Your task to perform on an android device: add a contact in the contacts app Image 0: 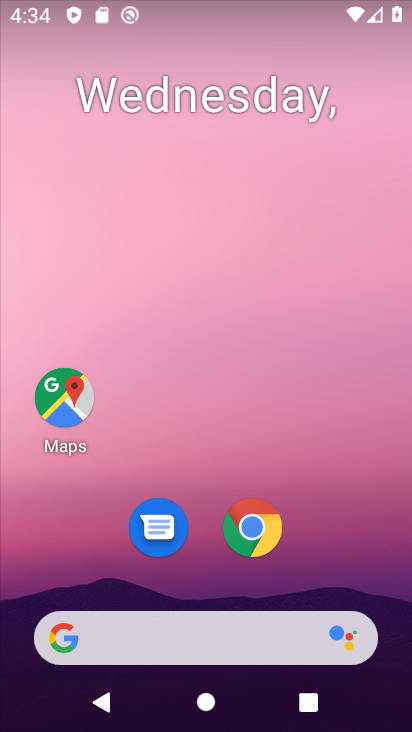
Step 0: drag from (218, 553) to (216, 50)
Your task to perform on an android device: add a contact in the contacts app Image 1: 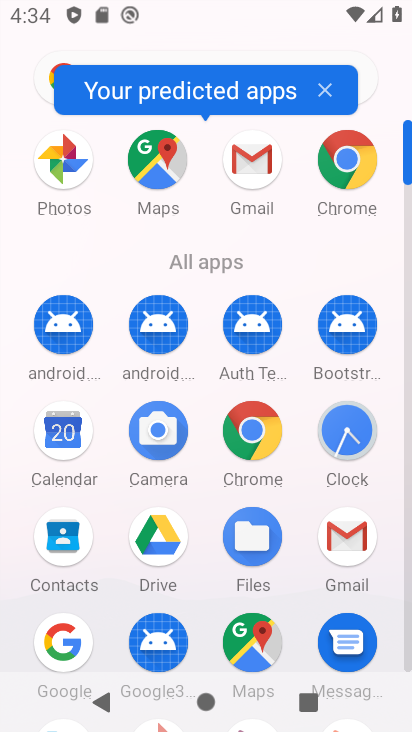
Step 1: click (68, 542)
Your task to perform on an android device: add a contact in the contacts app Image 2: 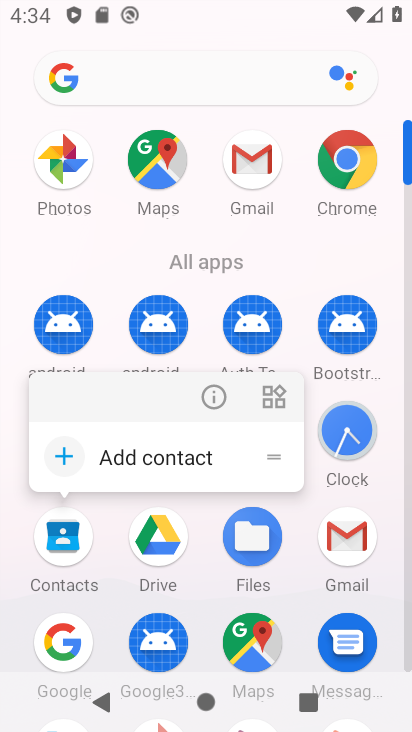
Step 2: click (60, 547)
Your task to perform on an android device: add a contact in the contacts app Image 3: 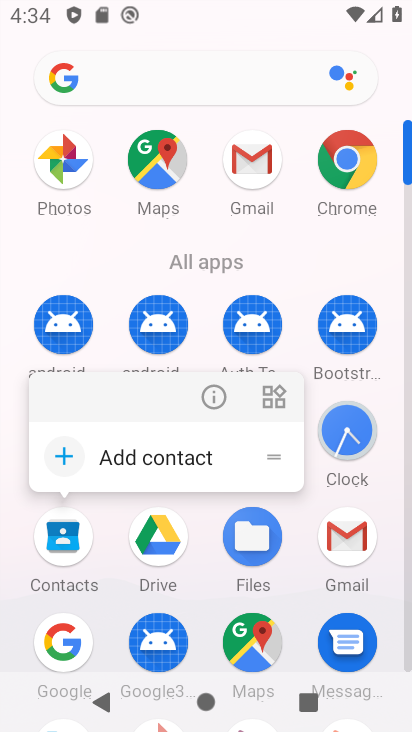
Step 3: click (65, 534)
Your task to perform on an android device: add a contact in the contacts app Image 4: 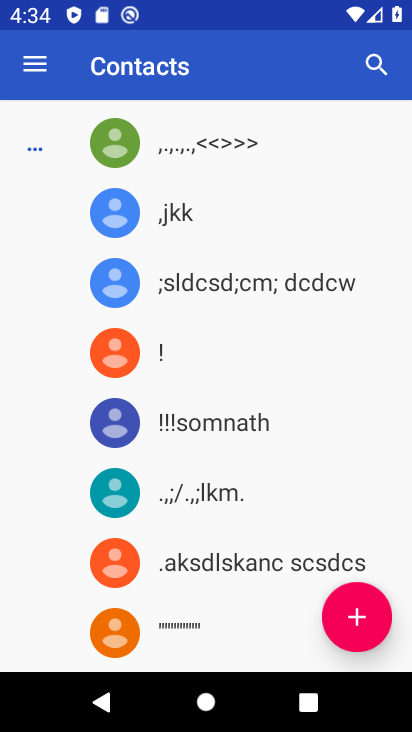
Step 4: click (364, 622)
Your task to perform on an android device: add a contact in the contacts app Image 5: 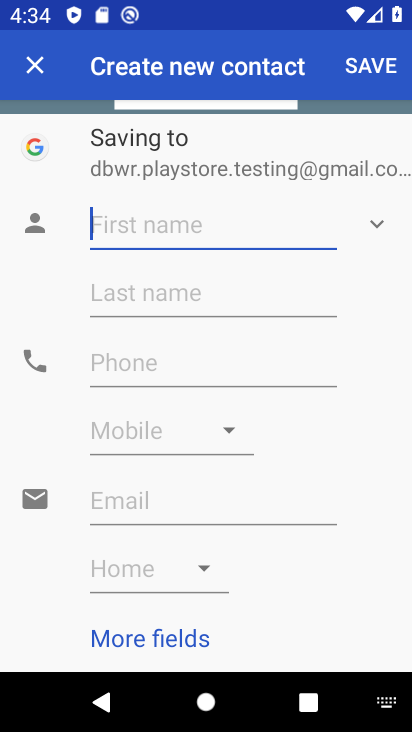
Step 5: type "ffhgfhg"
Your task to perform on an android device: add a contact in the contacts app Image 6: 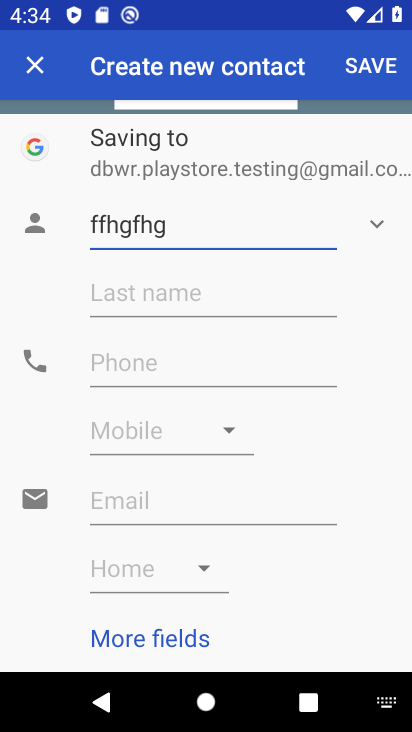
Step 6: click (258, 284)
Your task to perform on an android device: add a contact in the contacts app Image 7: 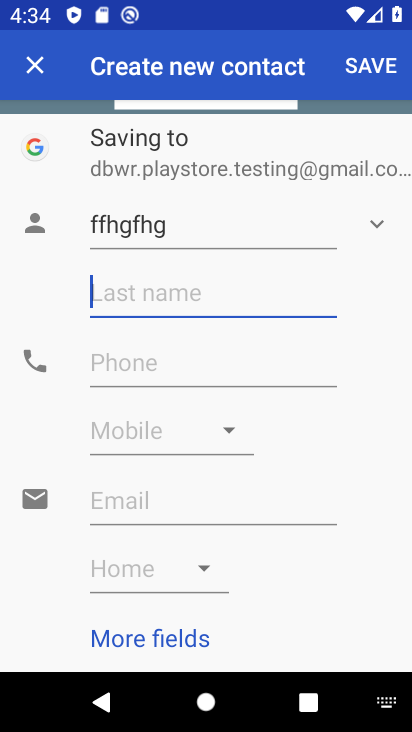
Step 7: type "hhjh"
Your task to perform on an android device: add a contact in the contacts app Image 8: 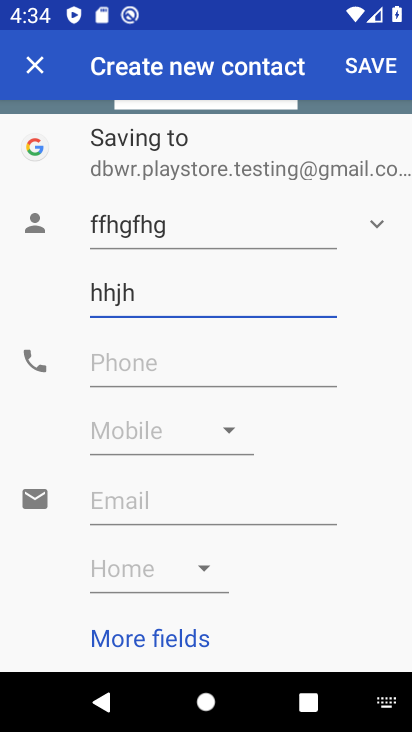
Step 8: click (155, 366)
Your task to perform on an android device: add a contact in the contacts app Image 9: 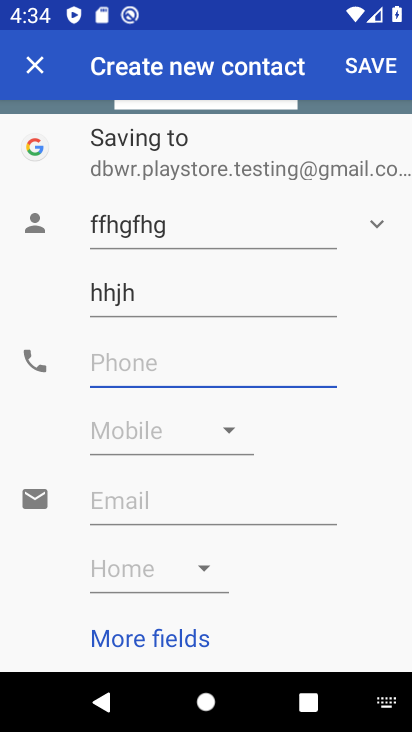
Step 9: type "6876876876"
Your task to perform on an android device: add a contact in the contacts app Image 10: 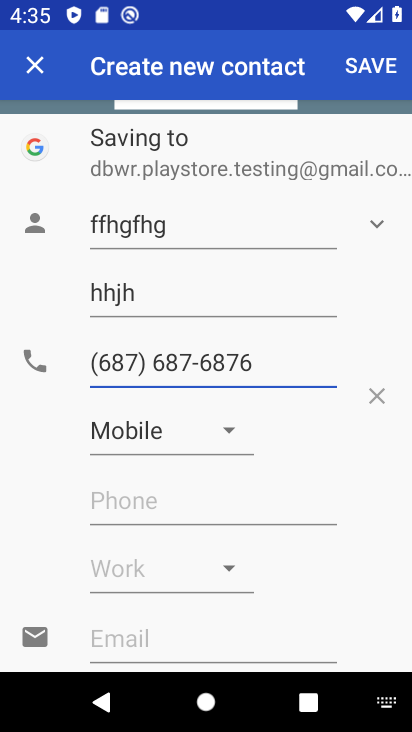
Step 10: click (363, 53)
Your task to perform on an android device: add a contact in the contacts app Image 11: 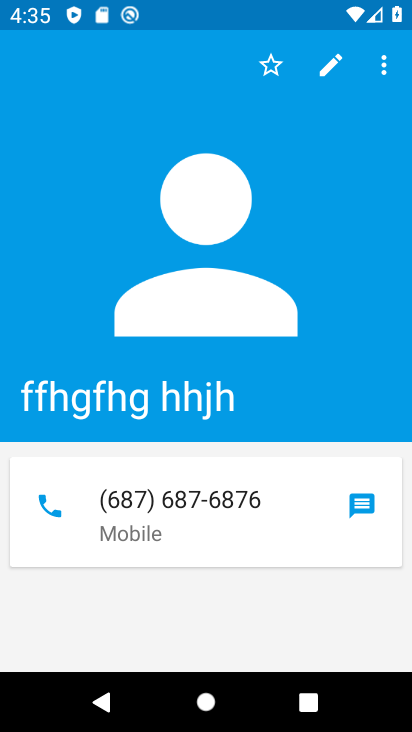
Step 11: task complete